Your task to perform on an android device: Turn on the flashlight Image 0: 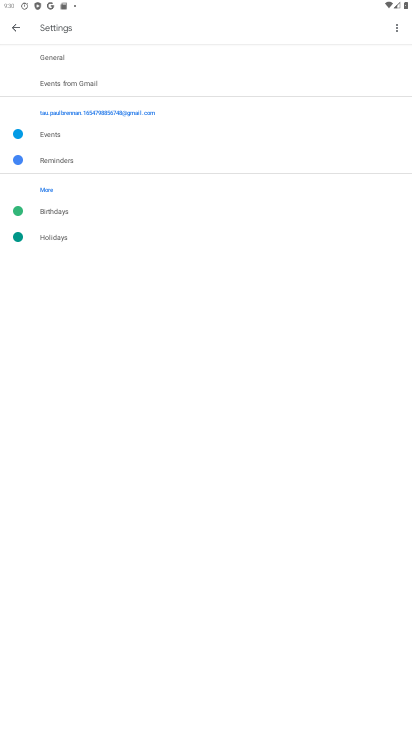
Step 0: press home button
Your task to perform on an android device: Turn on the flashlight Image 1: 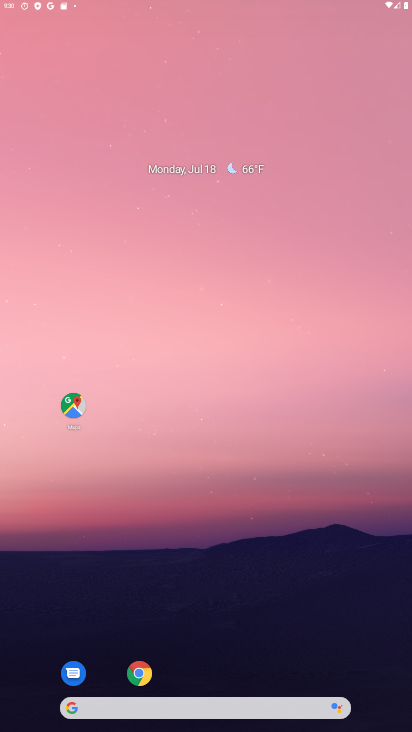
Step 1: drag from (228, 701) to (187, 121)
Your task to perform on an android device: Turn on the flashlight Image 2: 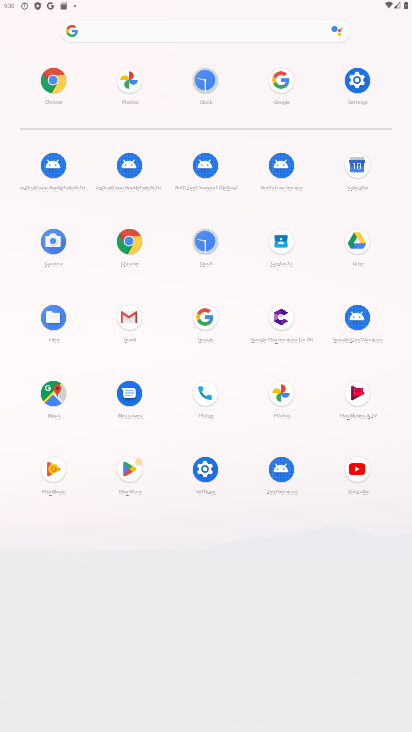
Step 2: click (361, 81)
Your task to perform on an android device: Turn on the flashlight Image 3: 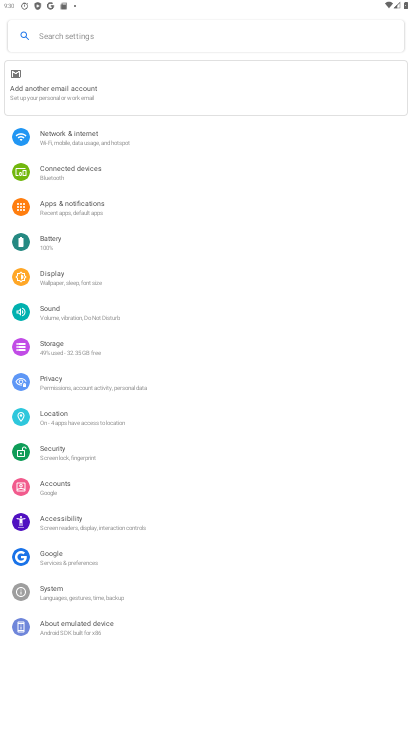
Step 3: click (142, 34)
Your task to perform on an android device: Turn on the flashlight Image 4: 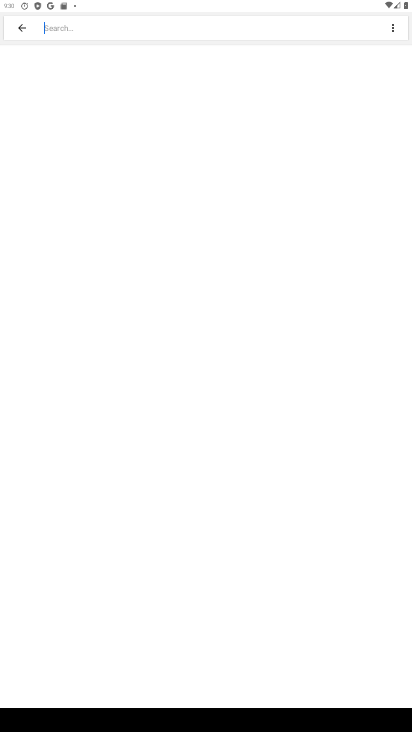
Step 4: type ""
Your task to perform on an android device: Turn on the flashlight Image 5: 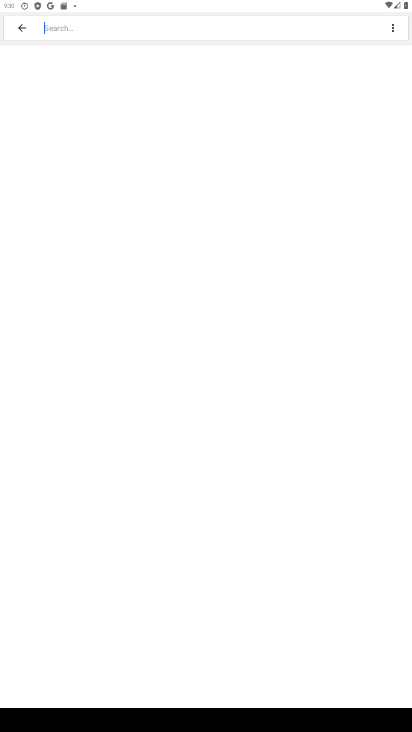
Step 5: type "flash"
Your task to perform on an android device: Turn on the flashlight Image 6: 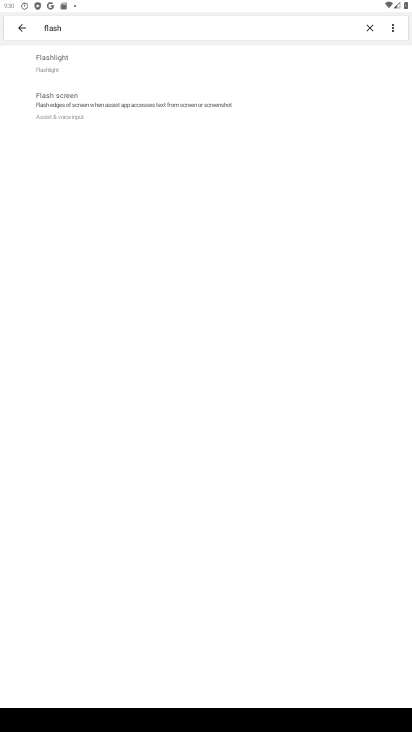
Step 6: task complete